Your task to perform on an android device: allow notifications from all sites in the chrome app Image 0: 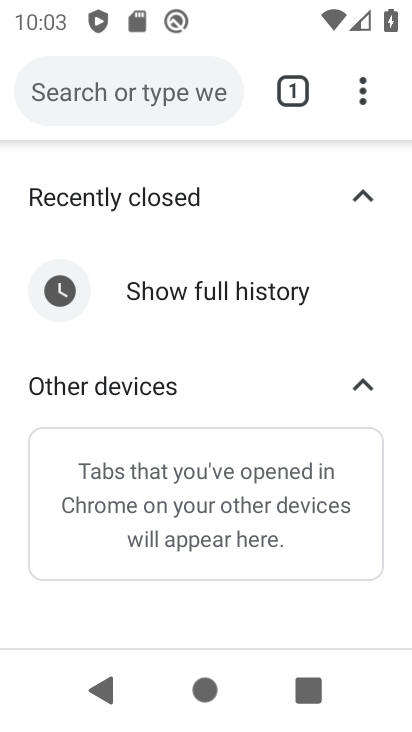
Step 0: press home button
Your task to perform on an android device: allow notifications from all sites in the chrome app Image 1: 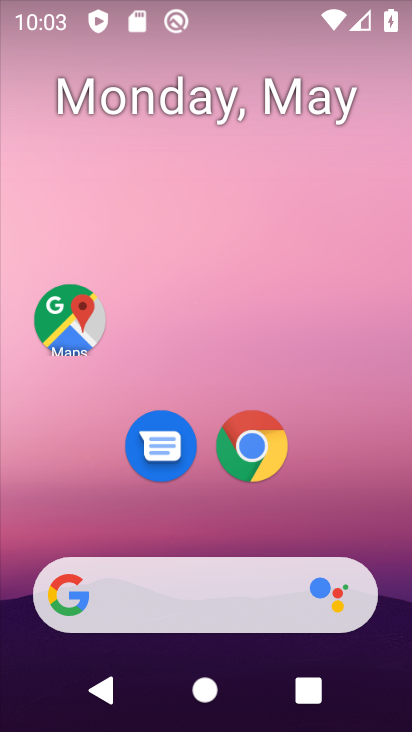
Step 1: click (243, 451)
Your task to perform on an android device: allow notifications from all sites in the chrome app Image 2: 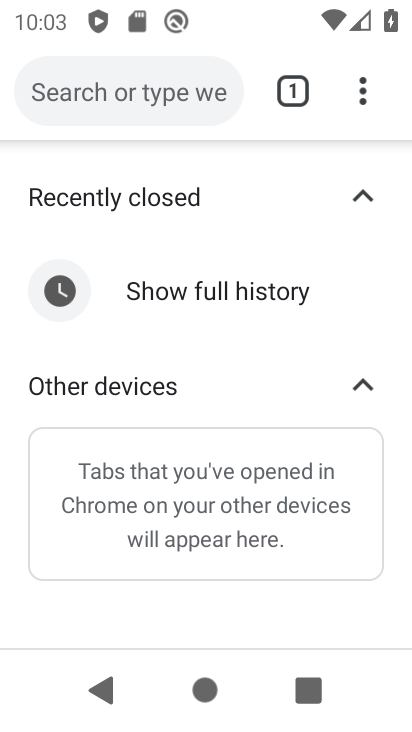
Step 2: click (364, 104)
Your task to perform on an android device: allow notifications from all sites in the chrome app Image 3: 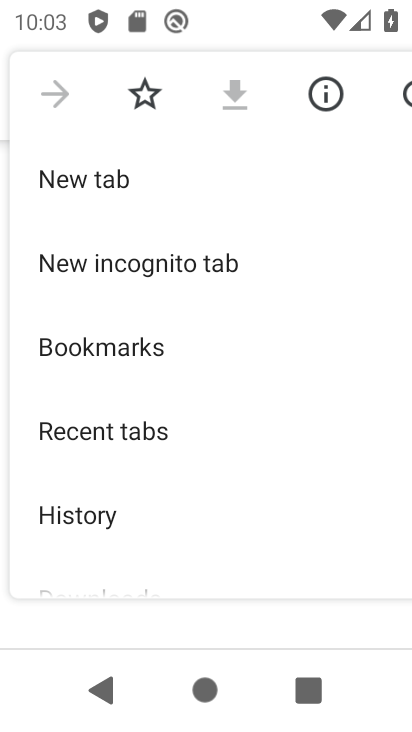
Step 3: drag from (210, 562) to (175, 160)
Your task to perform on an android device: allow notifications from all sites in the chrome app Image 4: 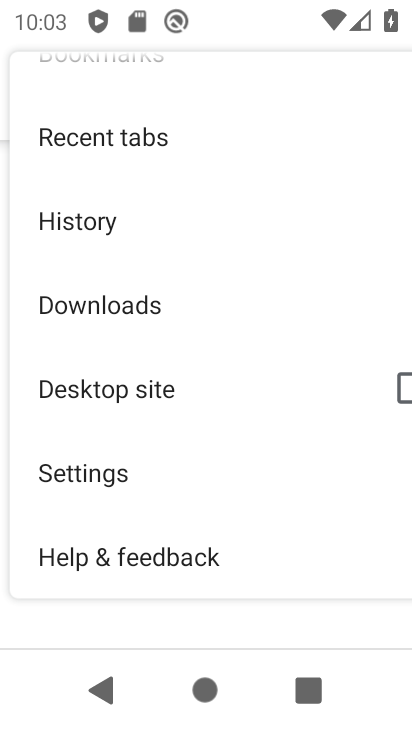
Step 4: click (104, 464)
Your task to perform on an android device: allow notifications from all sites in the chrome app Image 5: 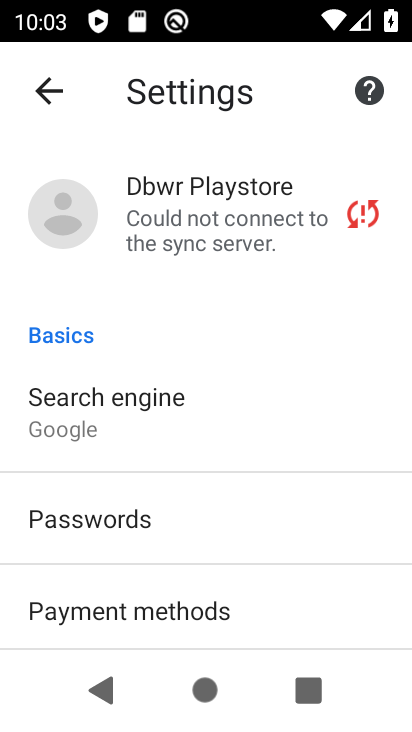
Step 5: drag from (198, 516) to (168, 235)
Your task to perform on an android device: allow notifications from all sites in the chrome app Image 6: 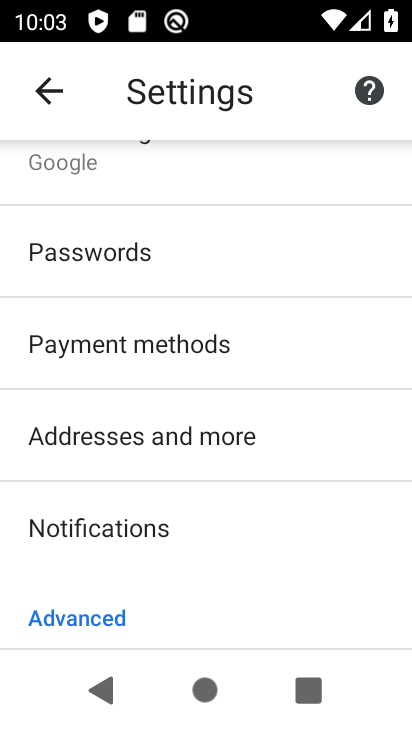
Step 6: click (109, 537)
Your task to perform on an android device: allow notifications from all sites in the chrome app Image 7: 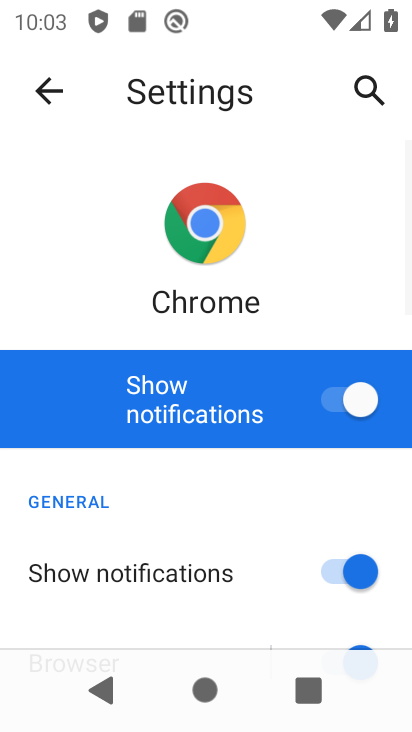
Step 7: task complete